Your task to perform on an android device: turn on sleep mode Image 0: 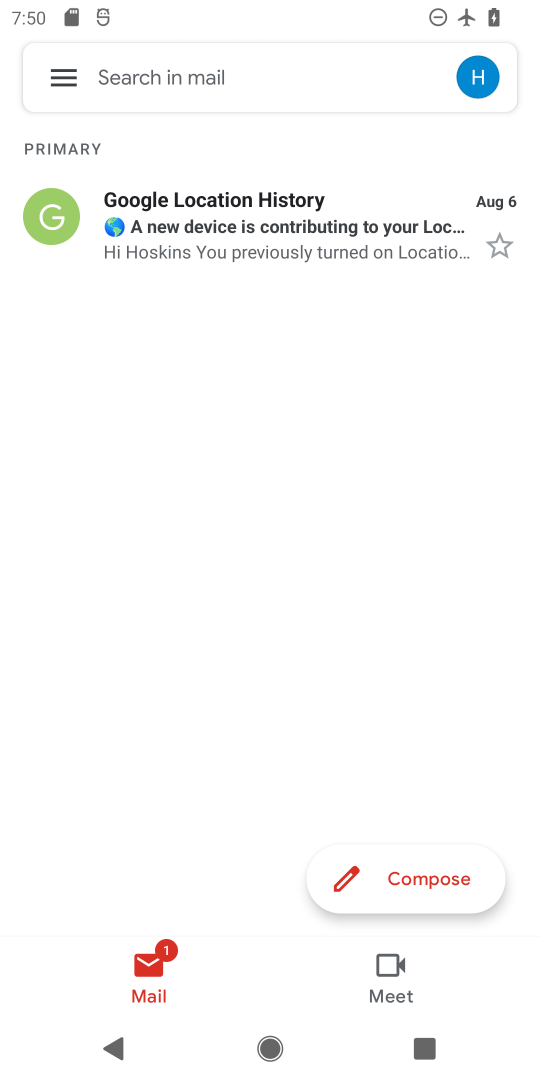
Step 0: press home button
Your task to perform on an android device: turn on sleep mode Image 1: 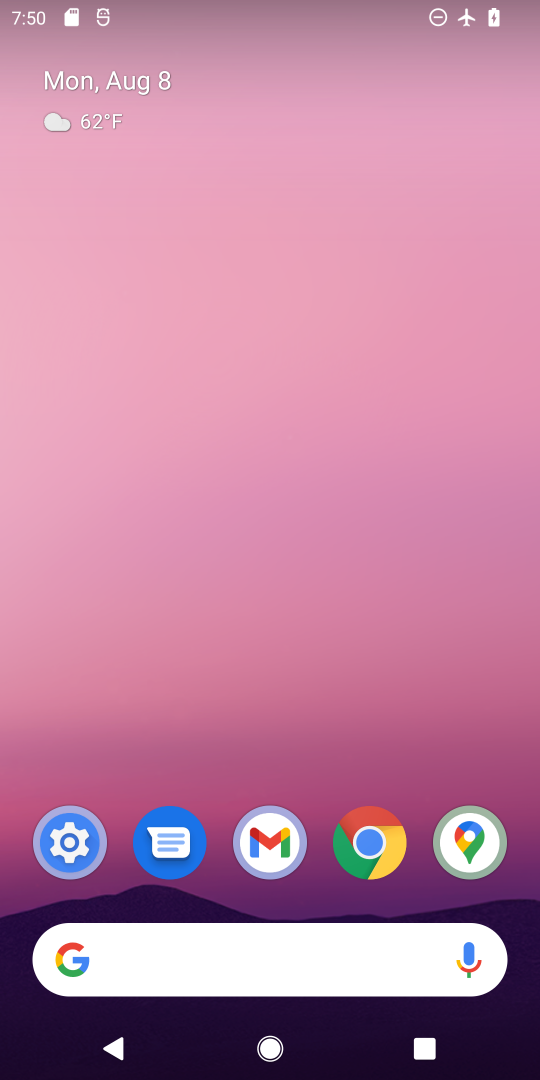
Step 1: drag from (281, 942) to (253, 84)
Your task to perform on an android device: turn on sleep mode Image 2: 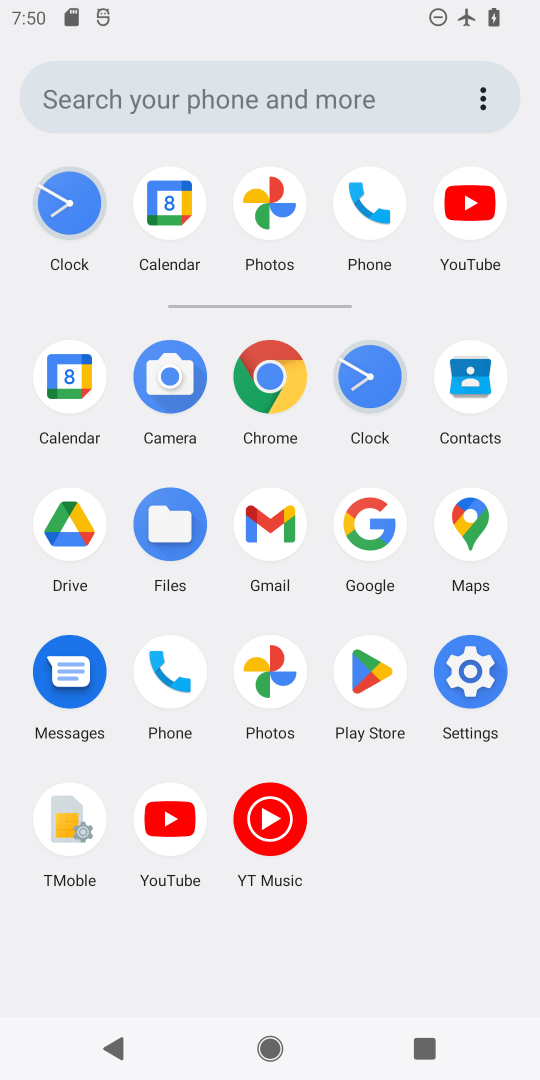
Step 2: click (465, 655)
Your task to perform on an android device: turn on sleep mode Image 3: 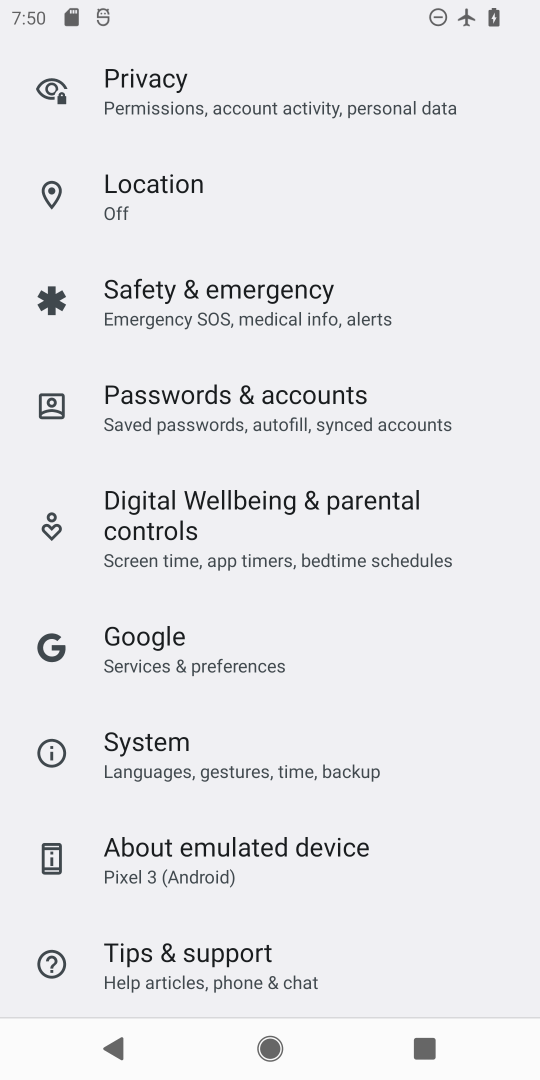
Step 3: drag from (211, 255) to (240, 750)
Your task to perform on an android device: turn on sleep mode Image 4: 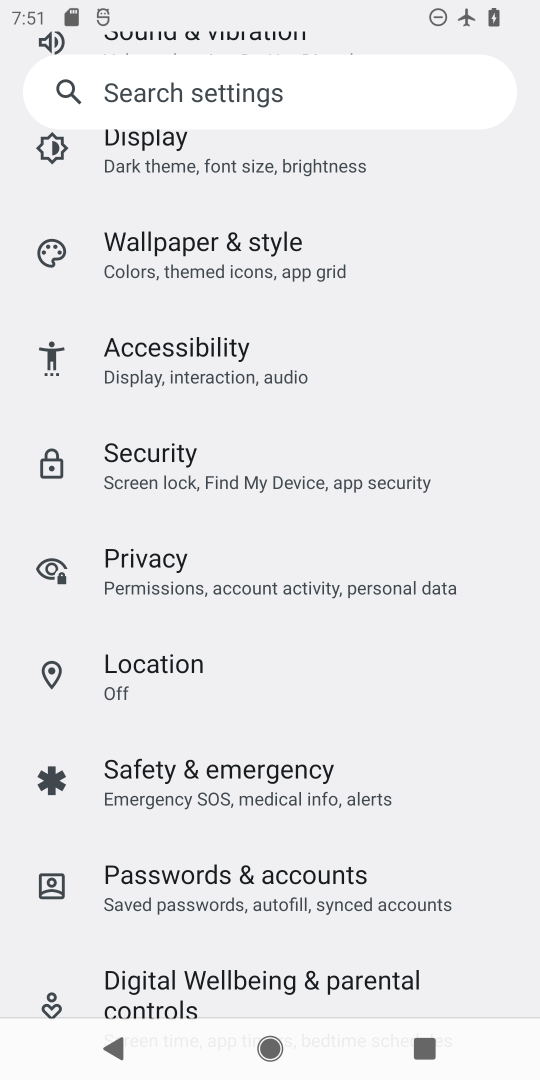
Step 4: click (163, 152)
Your task to perform on an android device: turn on sleep mode Image 5: 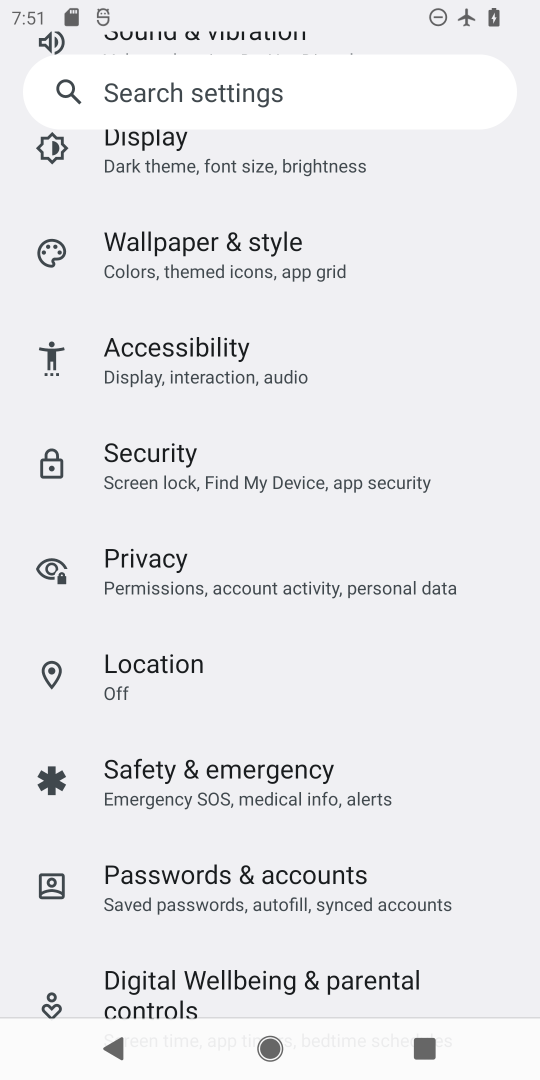
Step 5: click (168, 149)
Your task to perform on an android device: turn on sleep mode Image 6: 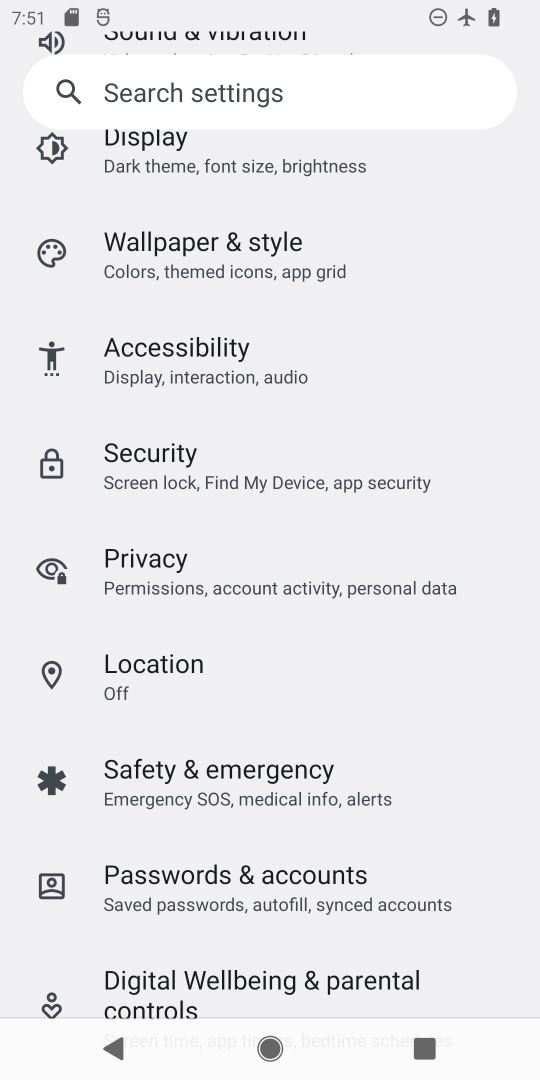
Step 6: task complete